Your task to perform on an android device: turn off location history Image 0: 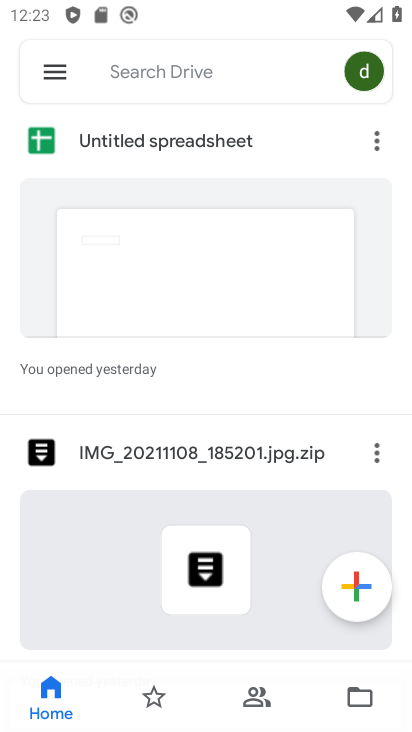
Step 0: press home button
Your task to perform on an android device: turn off location history Image 1: 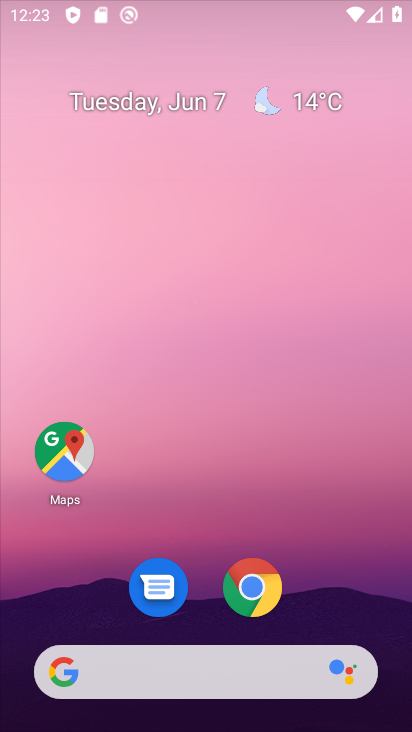
Step 1: drag from (227, 673) to (246, 165)
Your task to perform on an android device: turn off location history Image 2: 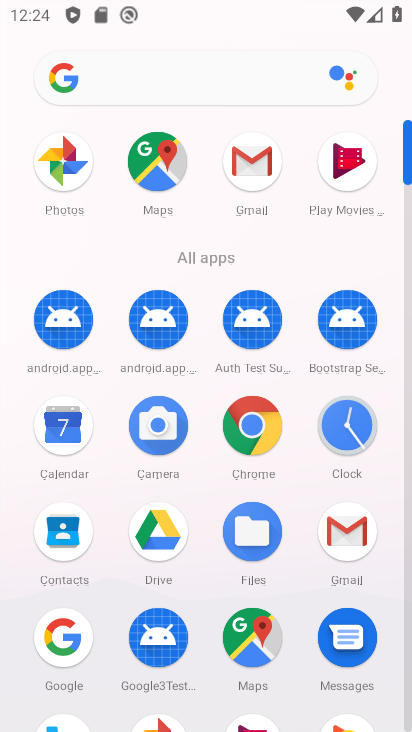
Step 2: drag from (190, 560) to (258, 233)
Your task to perform on an android device: turn off location history Image 3: 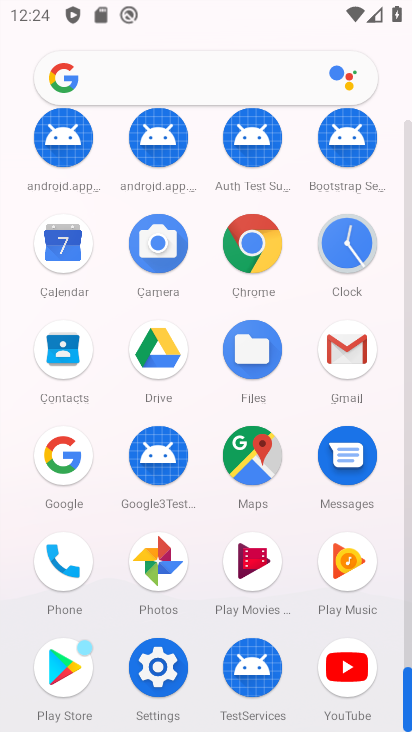
Step 3: click (177, 643)
Your task to perform on an android device: turn off location history Image 4: 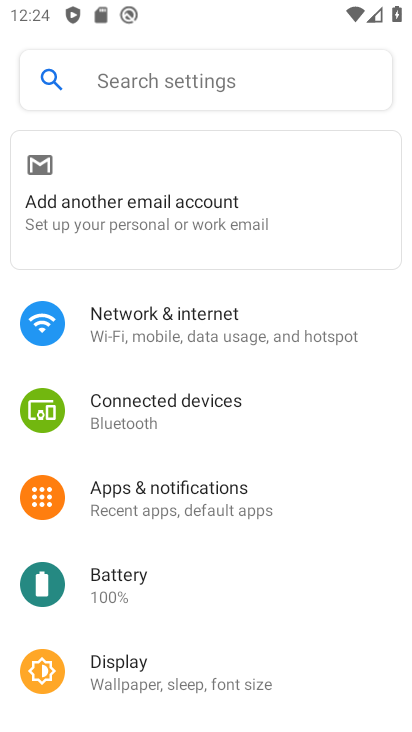
Step 4: drag from (237, 612) to (359, 207)
Your task to perform on an android device: turn off location history Image 5: 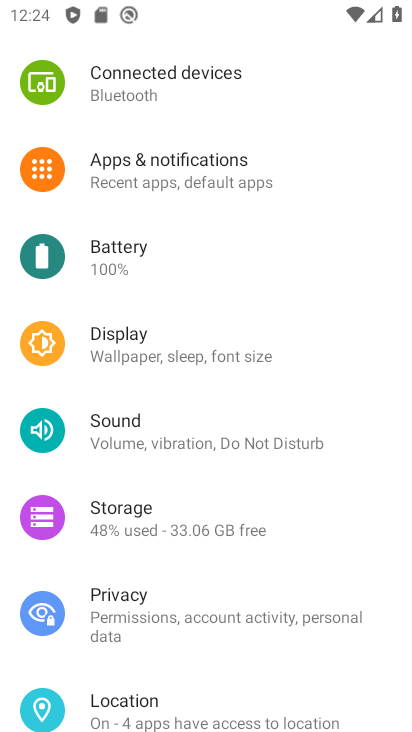
Step 5: drag from (180, 629) to (214, 352)
Your task to perform on an android device: turn off location history Image 6: 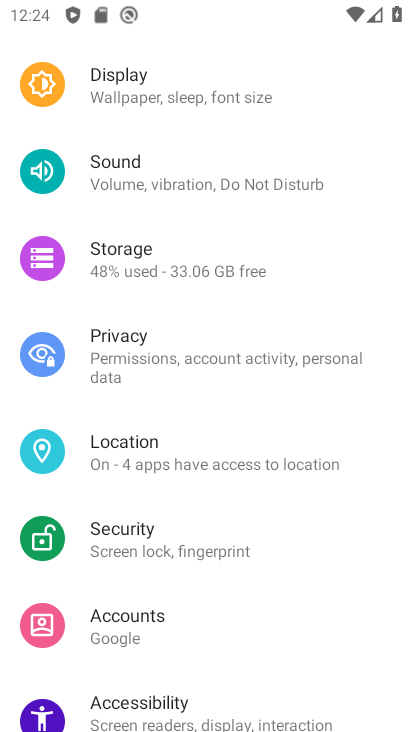
Step 6: click (251, 459)
Your task to perform on an android device: turn off location history Image 7: 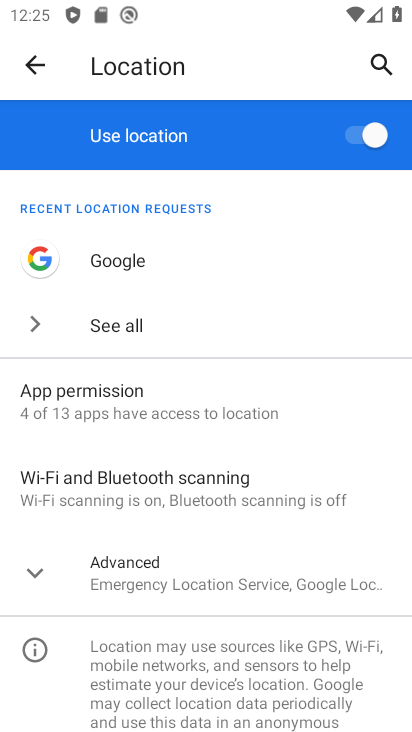
Step 7: click (185, 596)
Your task to perform on an android device: turn off location history Image 8: 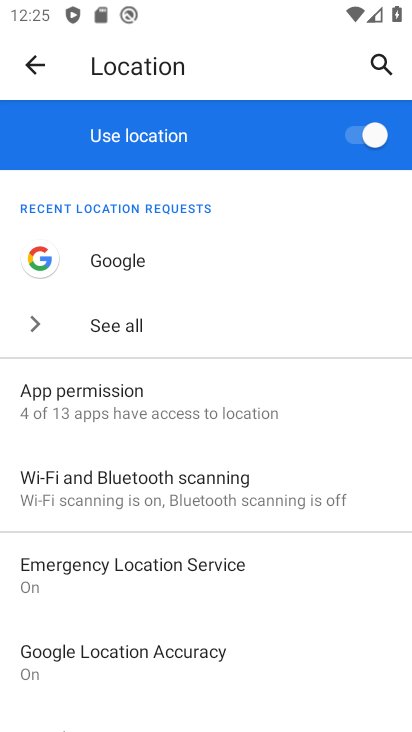
Step 8: drag from (241, 649) to (267, 366)
Your task to perform on an android device: turn off location history Image 9: 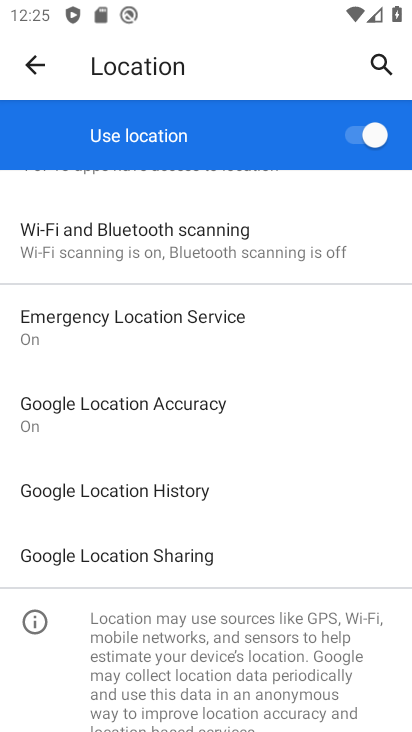
Step 9: click (204, 485)
Your task to perform on an android device: turn off location history Image 10: 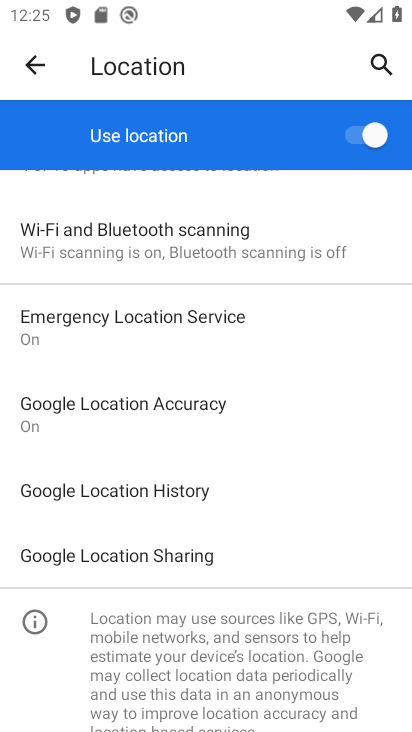
Step 10: click (214, 499)
Your task to perform on an android device: turn off location history Image 11: 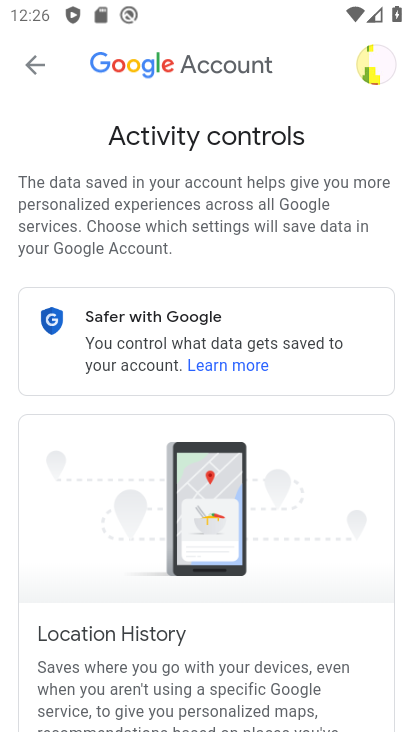
Step 11: drag from (239, 590) to (286, 146)
Your task to perform on an android device: turn off location history Image 12: 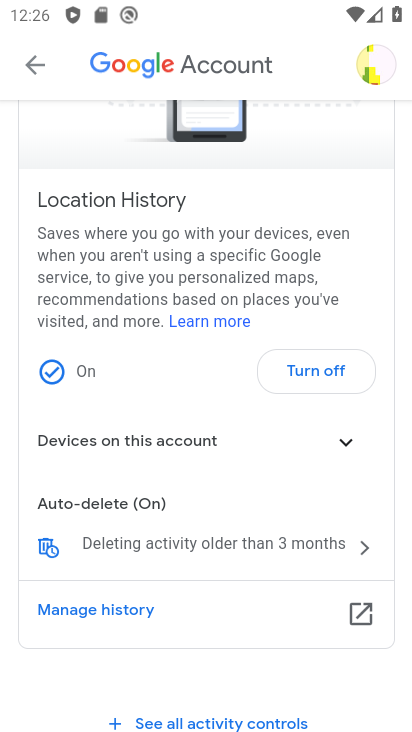
Step 12: click (309, 365)
Your task to perform on an android device: turn off location history Image 13: 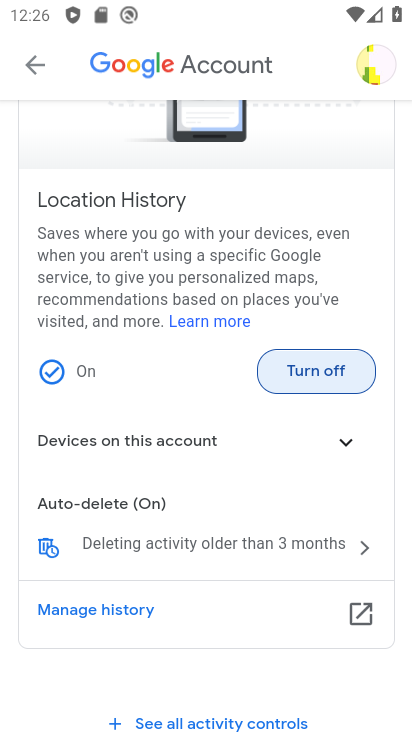
Step 13: click (348, 367)
Your task to perform on an android device: turn off location history Image 14: 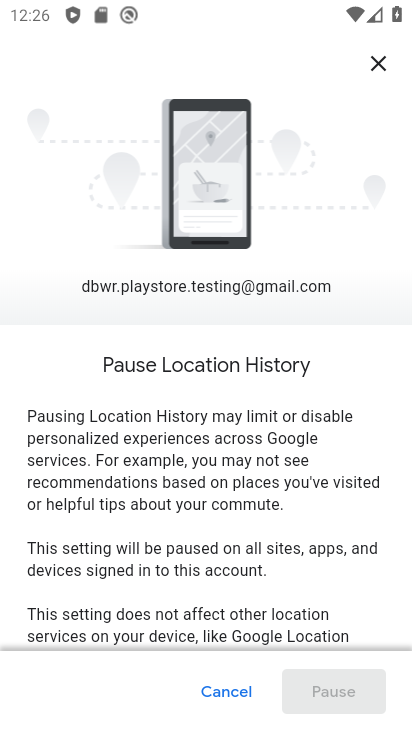
Step 14: drag from (316, 561) to (387, 108)
Your task to perform on an android device: turn off location history Image 15: 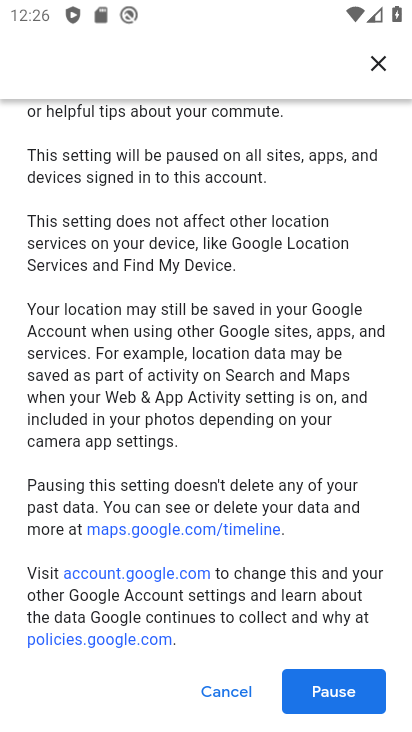
Step 15: drag from (286, 602) to (347, 201)
Your task to perform on an android device: turn off location history Image 16: 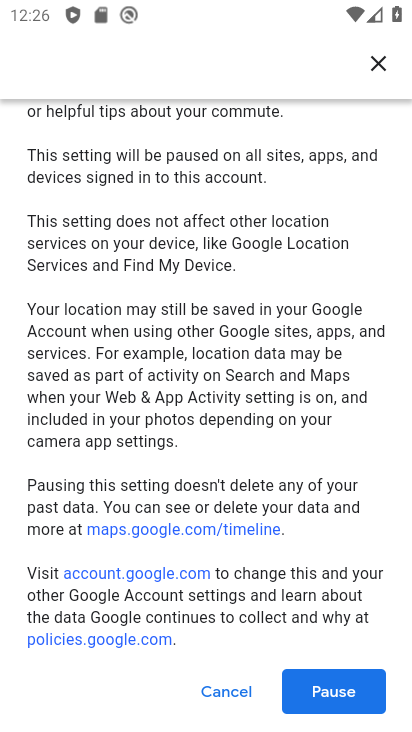
Step 16: click (351, 684)
Your task to perform on an android device: turn off location history Image 17: 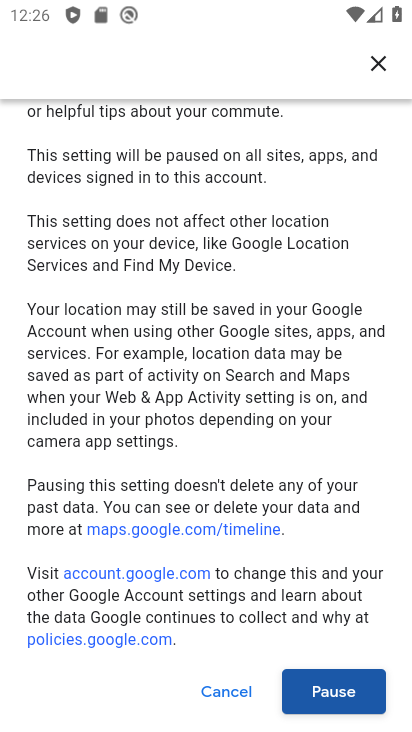
Step 17: click (353, 683)
Your task to perform on an android device: turn off location history Image 18: 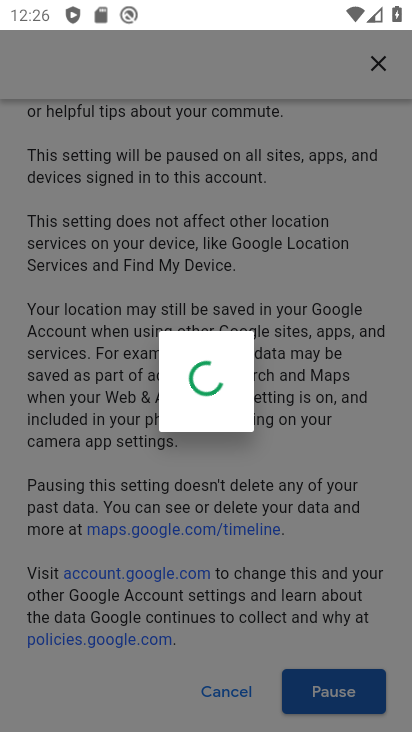
Step 18: drag from (339, 699) to (337, 576)
Your task to perform on an android device: turn off location history Image 19: 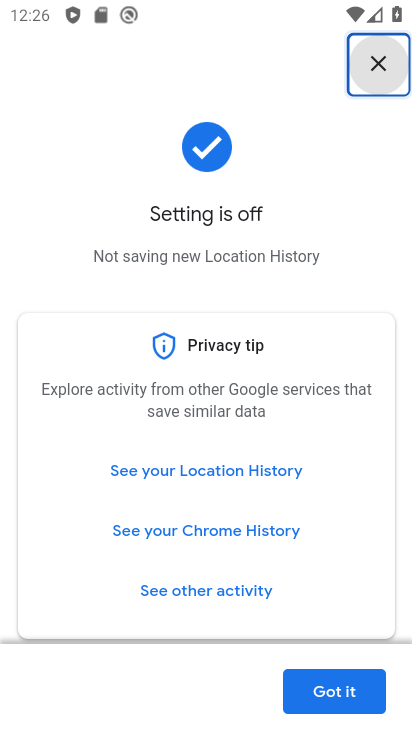
Step 19: click (379, 703)
Your task to perform on an android device: turn off location history Image 20: 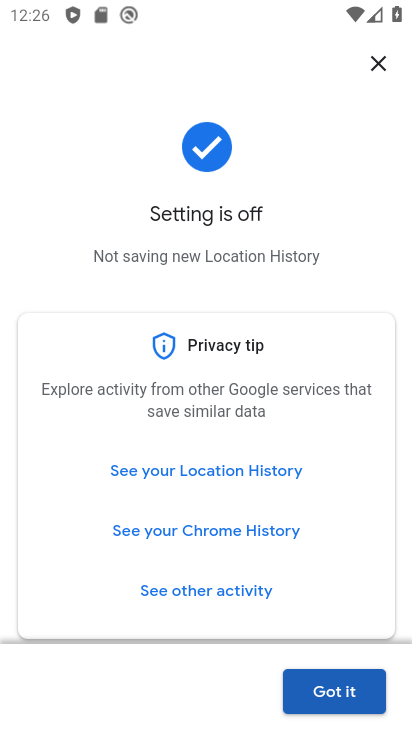
Step 20: task complete